Your task to perform on an android device: Open battery settings Image 0: 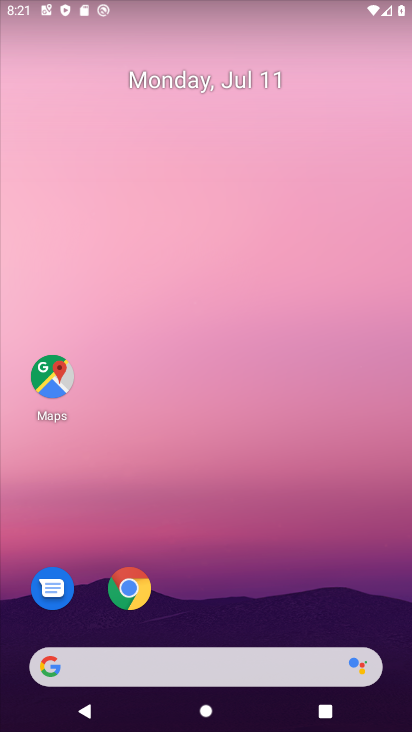
Step 0: drag from (270, 585) to (291, 23)
Your task to perform on an android device: Open battery settings Image 1: 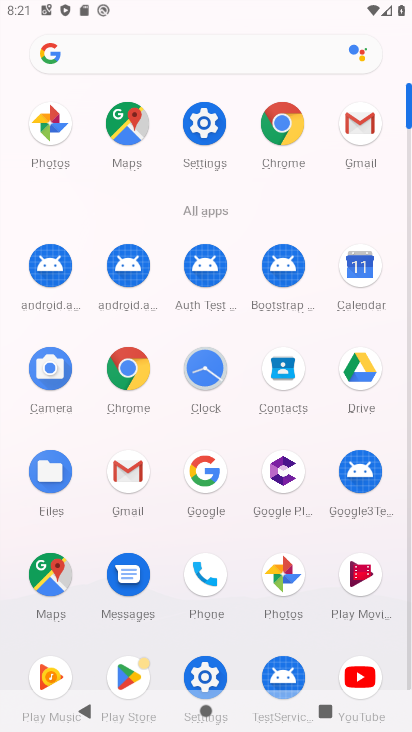
Step 1: click (208, 129)
Your task to perform on an android device: Open battery settings Image 2: 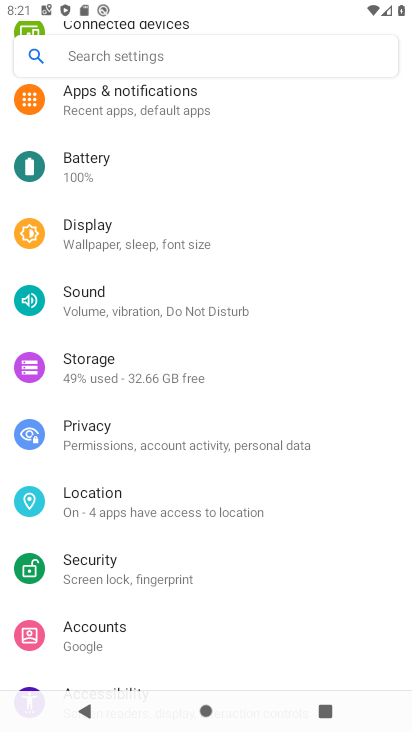
Step 2: click (132, 161)
Your task to perform on an android device: Open battery settings Image 3: 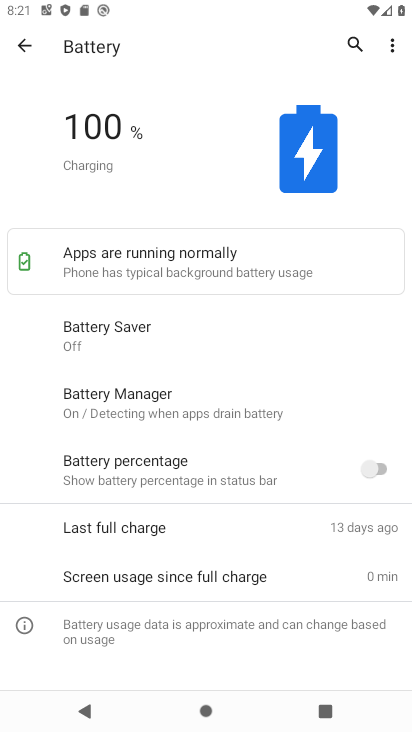
Step 3: click (132, 161)
Your task to perform on an android device: Open battery settings Image 4: 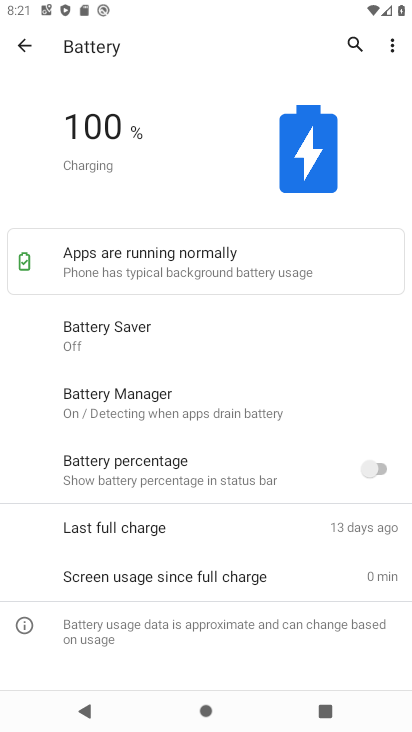
Step 4: task complete